Your task to perform on an android device: Add "razer blade" to the cart on target Image 0: 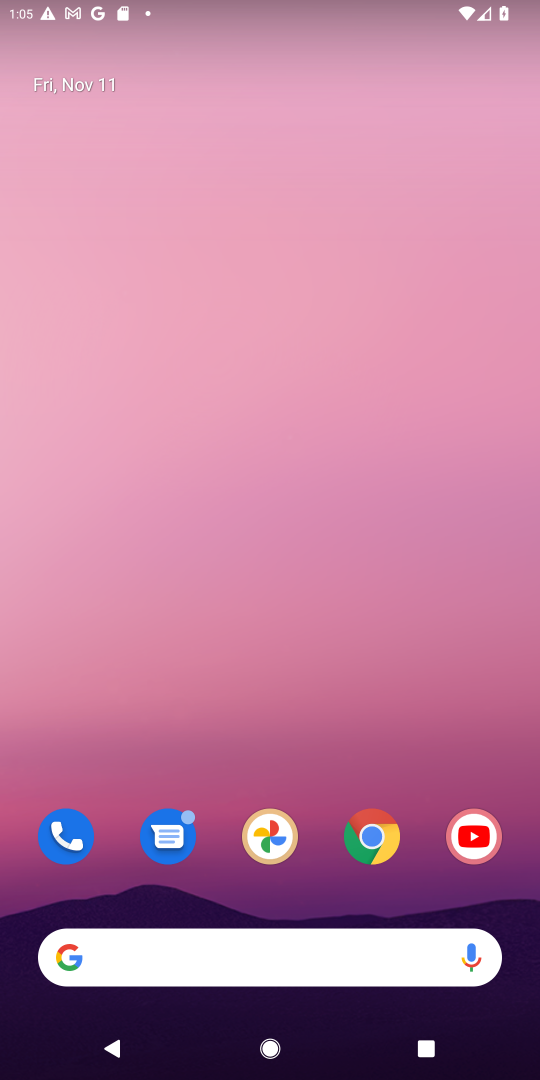
Step 0: click (259, 960)
Your task to perform on an android device: Add "razer blade" to the cart on target Image 1: 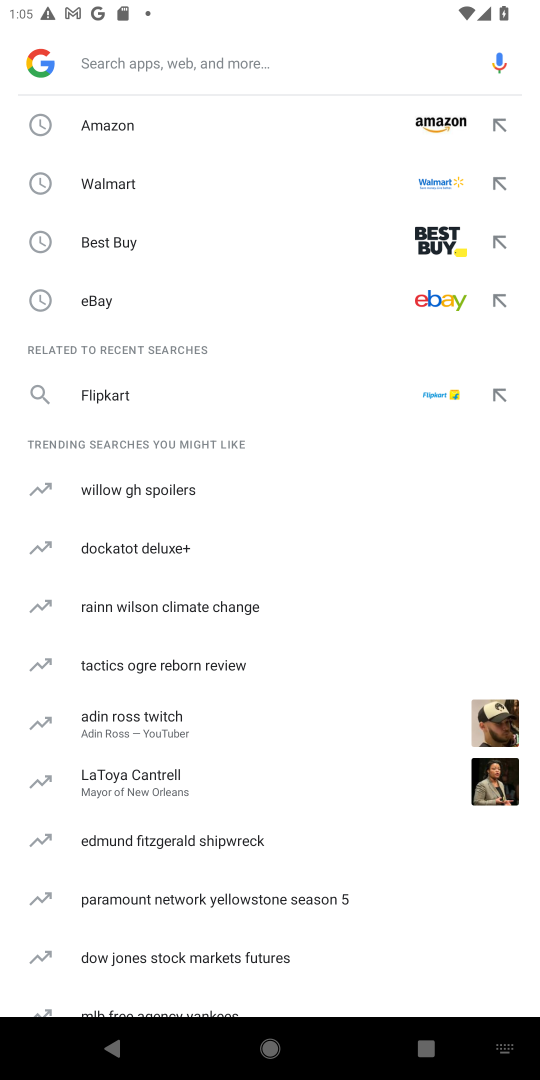
Step 1: click (259, 960)
Your task to perform on an android device: Add "razer blade" to the cart on target Image 2: 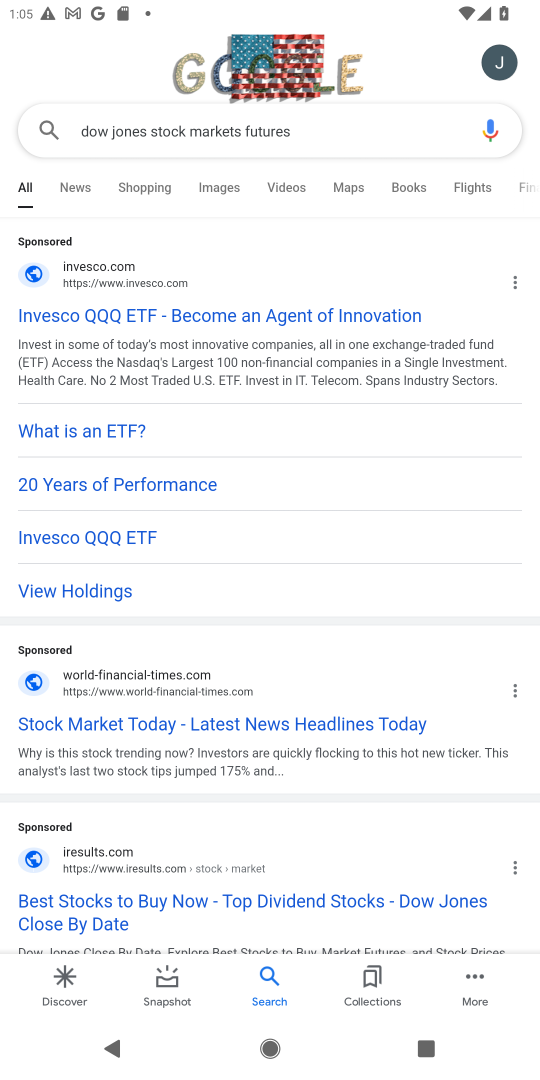
Step 2: click (315, 128)
Your task to perform on an android device: Add "razer blade" to the cart on target Image 3: 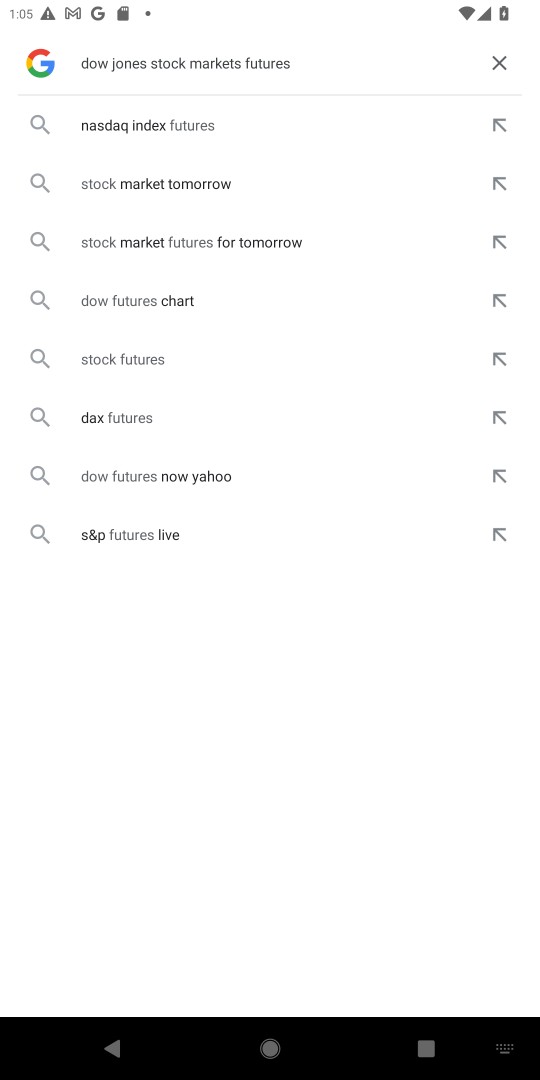
Step 3: click (494, 68)
Your task to perform on an android device: Add "razer blade" to the cart on target Image 4: 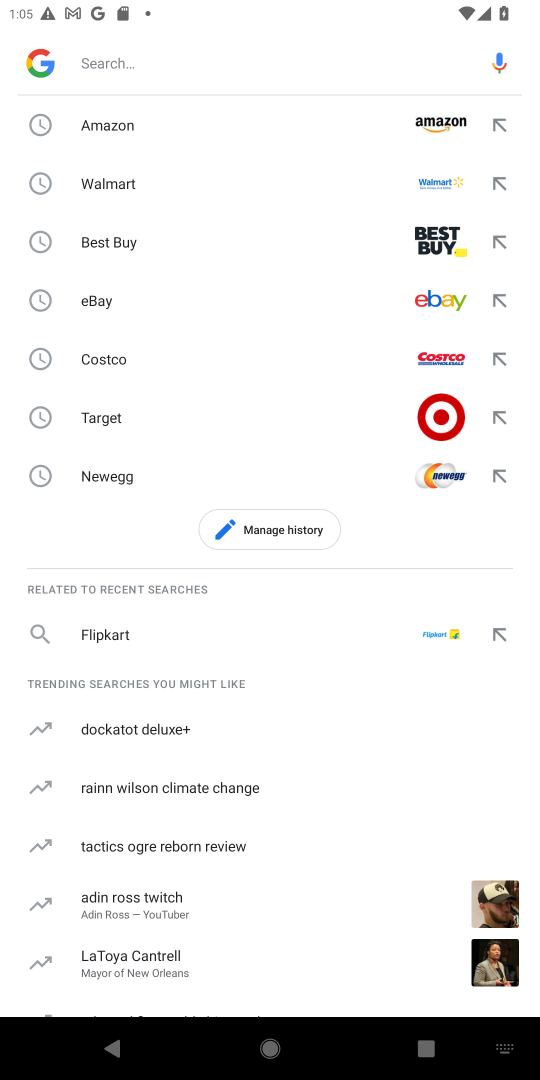
Step 4: click (498, 63)
Your task to perform on an android device: Add "razer blade" to the cart on target Image 5: 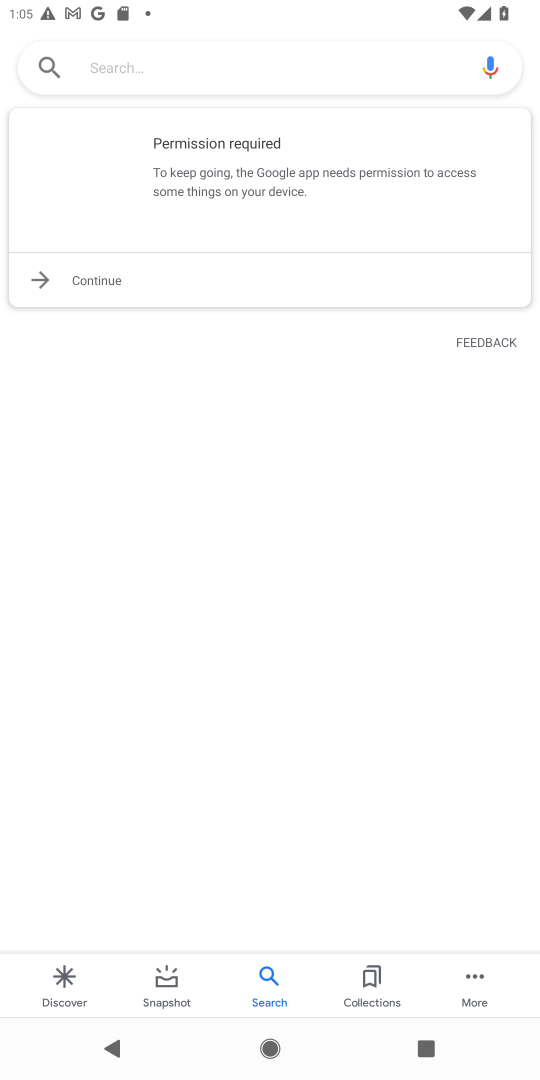
Step 5: click (337, 68)
Your task to perform on an android device: Add "razer blade" to the cart on target Image 6: 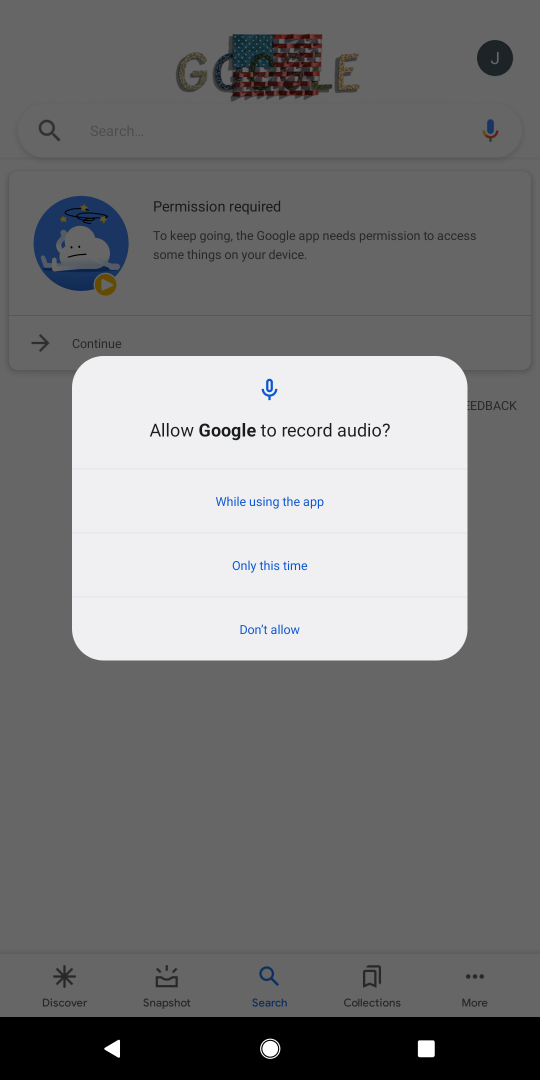
Step 6: click (147, 116)
Your task to perform on an android device: Add "razer blade" to the cart on target Image 7: 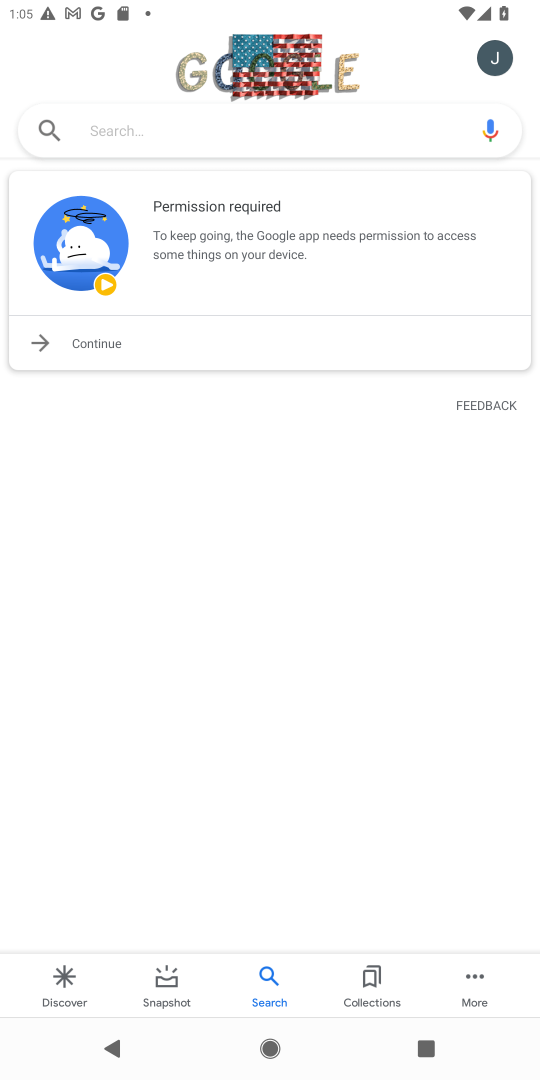
Step 7: press back button
Your task to perform on an android device: Add "razer blade" to the cart on target Image 8: 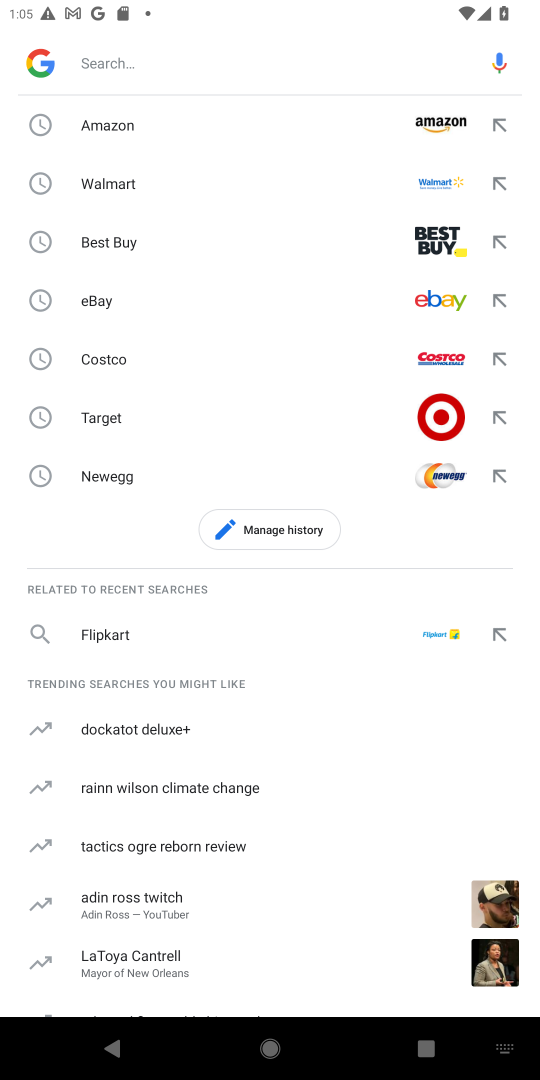
Step 8: press back button
Your task to perform on an android device: Add "razer blade" to the cart on target Image 9: 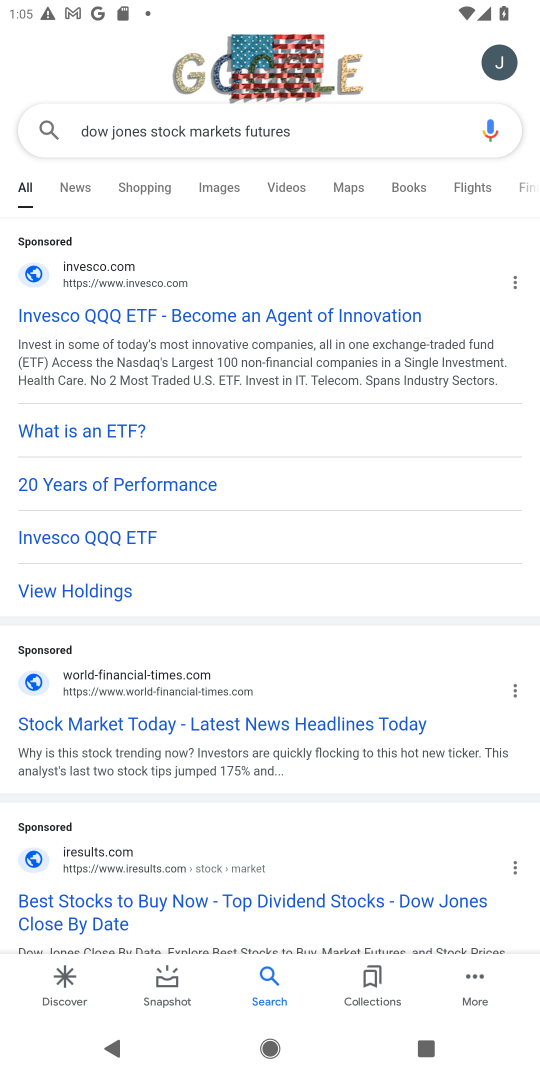
Step 9: click (330, 124)
Your task to perform on an android device: Add "razer blade" to the cart on target Image 10: 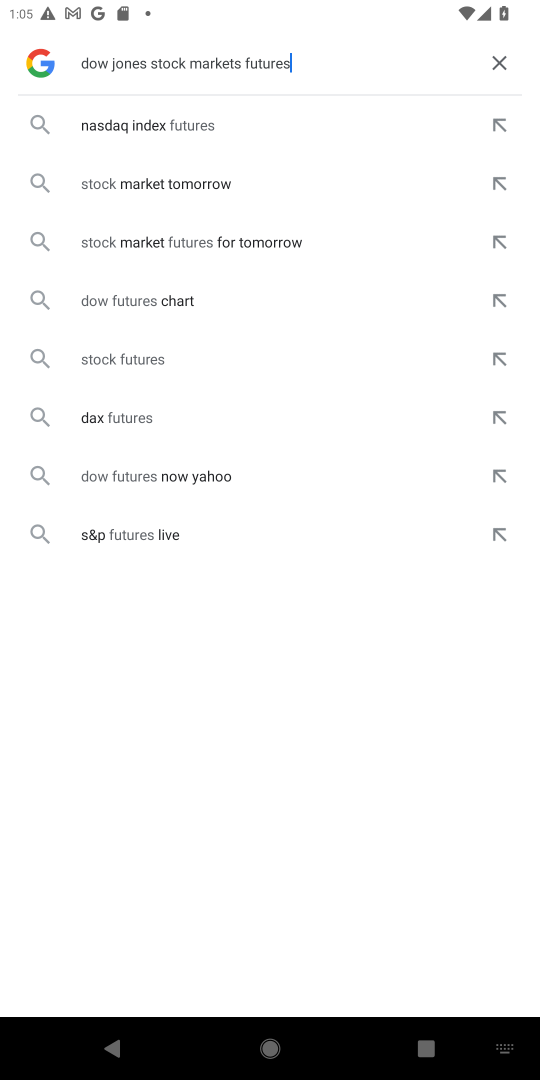
Step 10: click (490, 64)
Your task to perform on an android device: Add "razer blade" to the cart on target Image 11: 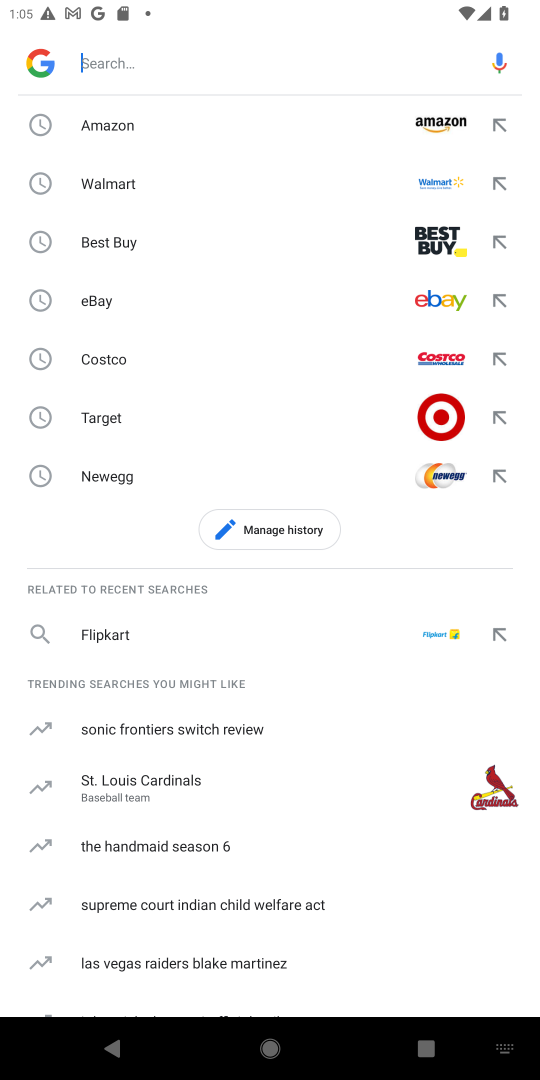
Step 11: click (148, 415)
Your task to perform on an android device: Add "razer blade" to the cart on target Image 12: 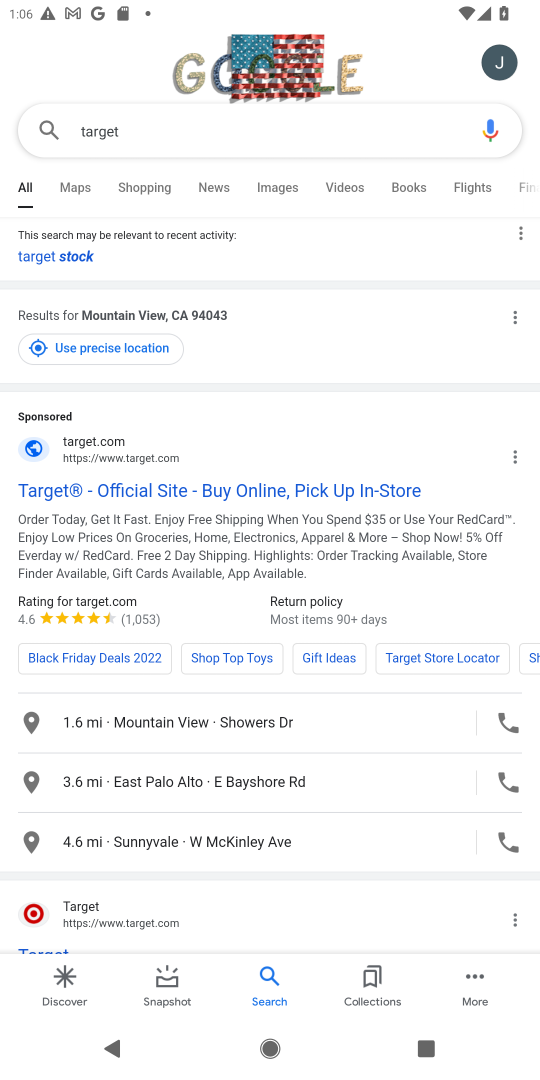
Step 12: click (113, 436)
Your task to perform on an android device: Add "razer blade" to the cart on target Image 13: 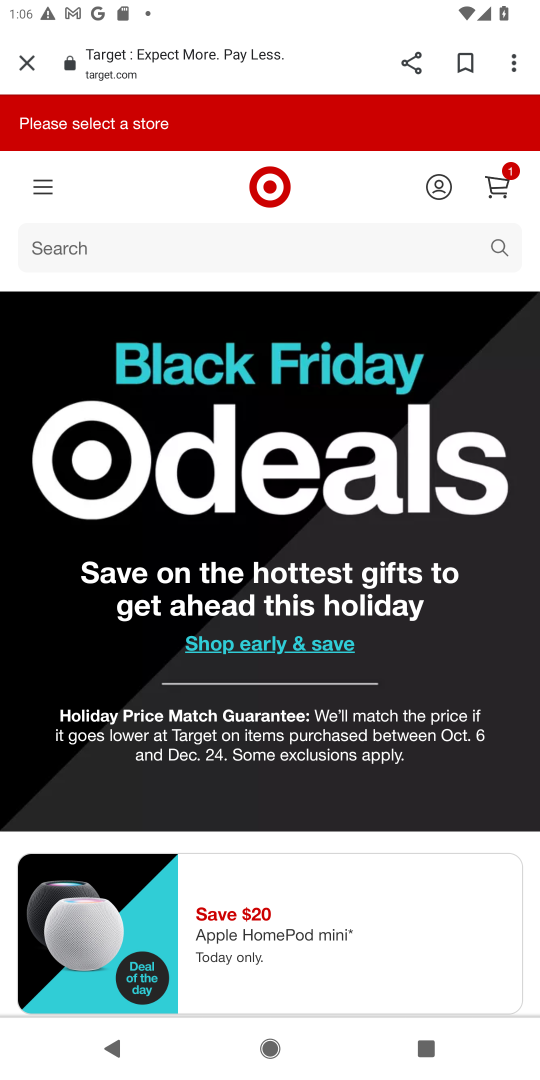
Step 13: click (301, 251)
Your task to perform on an android device: Add "razer blade" to the cart on target Image 14: 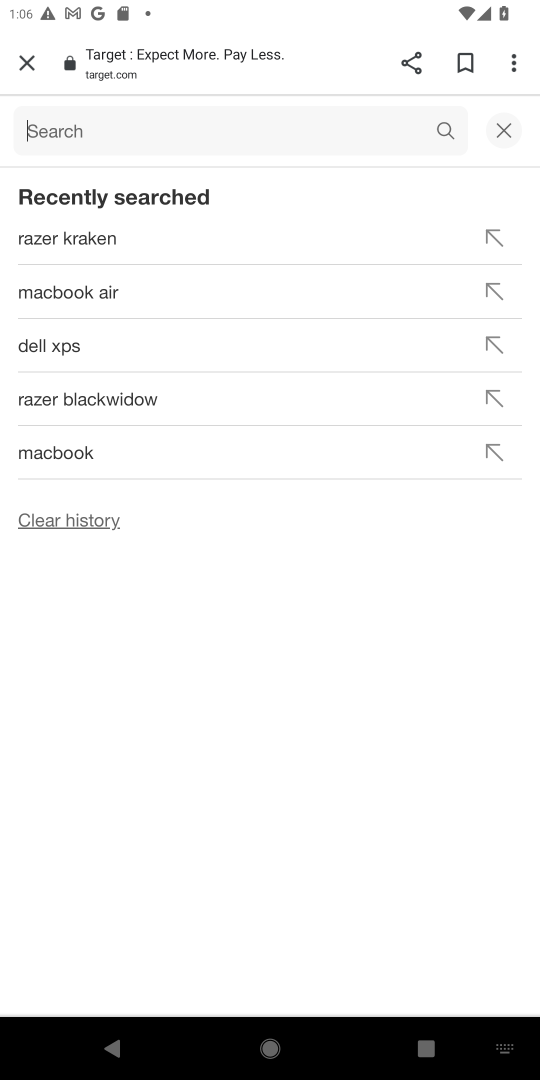
Step 14: type "razer blade"
Your task to perform on an android device: Add "razer blade" to the cart on target Image 15: 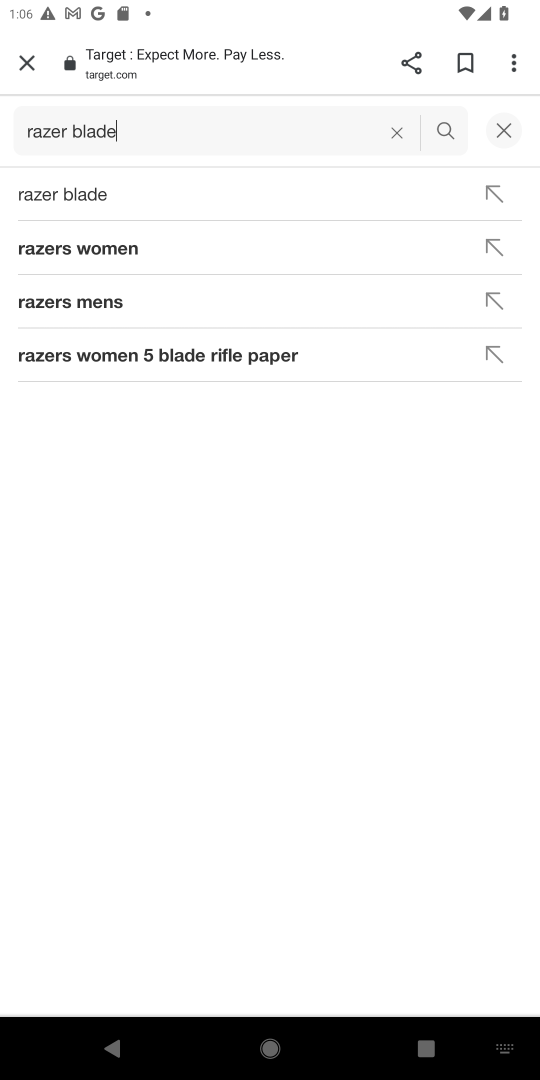
Step 15: click (104, 200)
Your task to perform on an android device: Add "razer blade" to the cart on target Image 16: 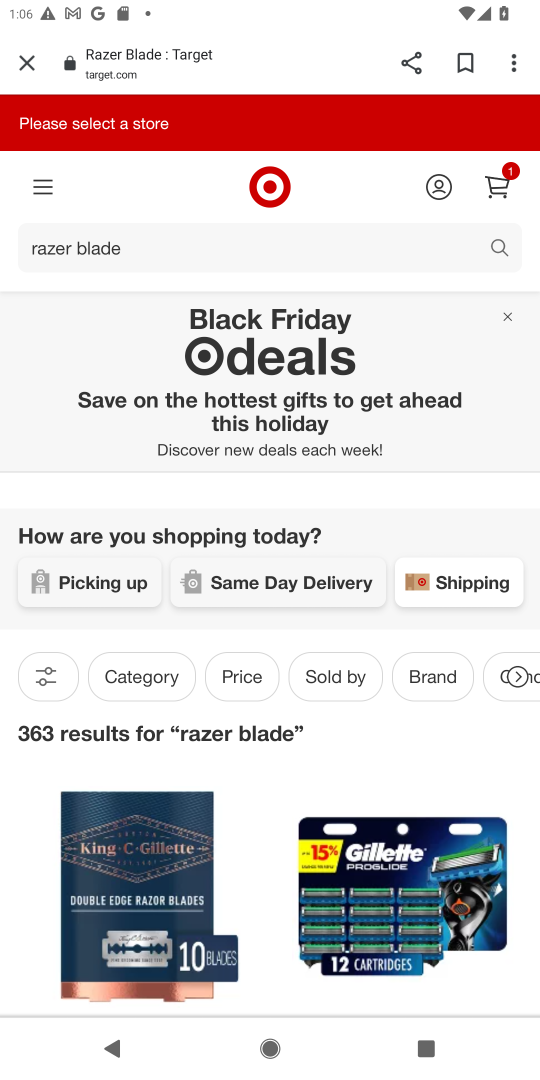
Step 16: drag from (234, 814) to (298, 355)
Your task to perform on an android device: Add "razer blade" to the cart on target Image 17: 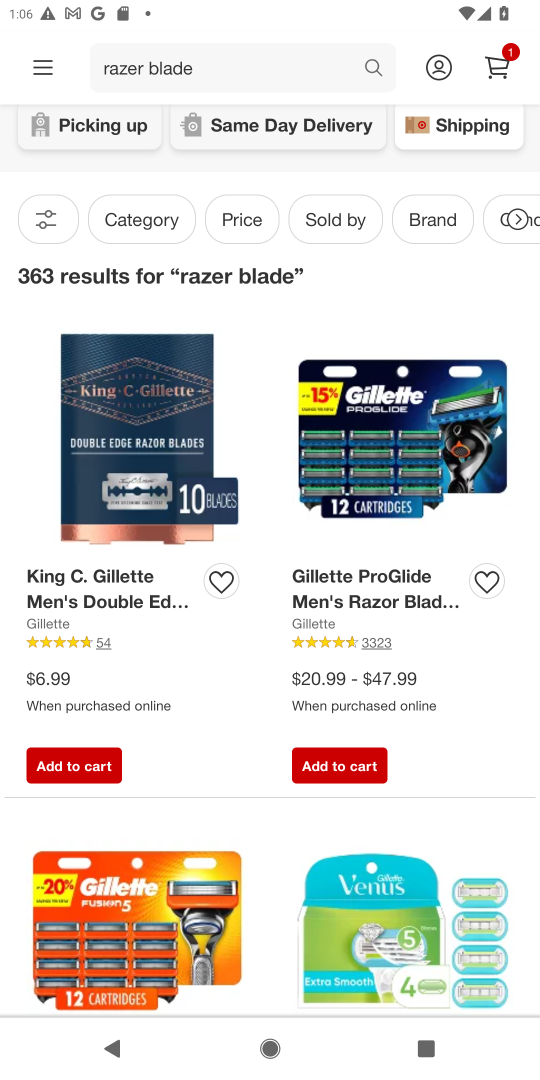
Step 17: click (61, 765)
Your task to perform on an android device: Add "razer blade" to the cart on target Image 18: 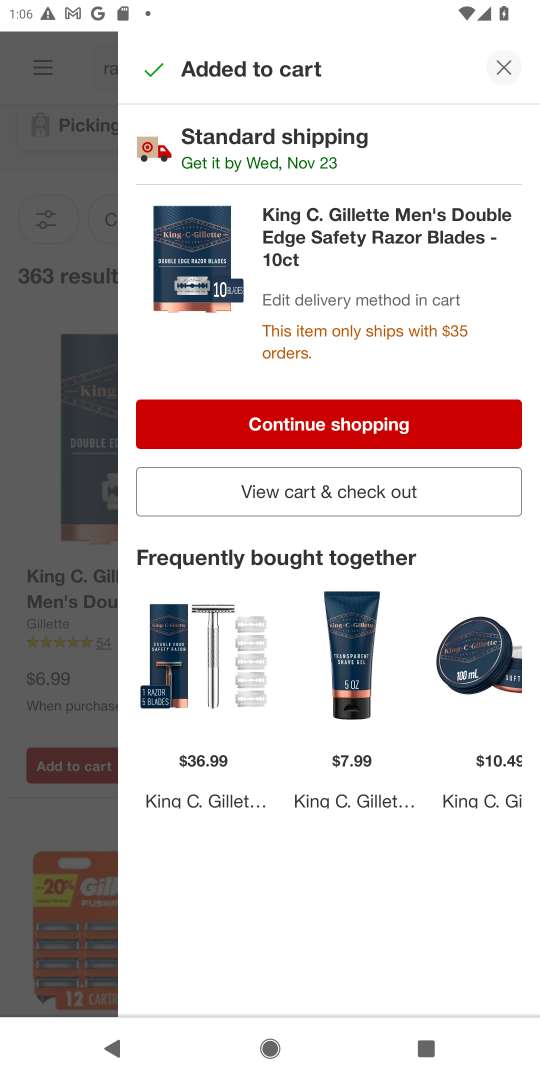
Step 18: click (303, 491)
Your task to perform on an android device: Add "razer blade" to the cart on target Image 19: 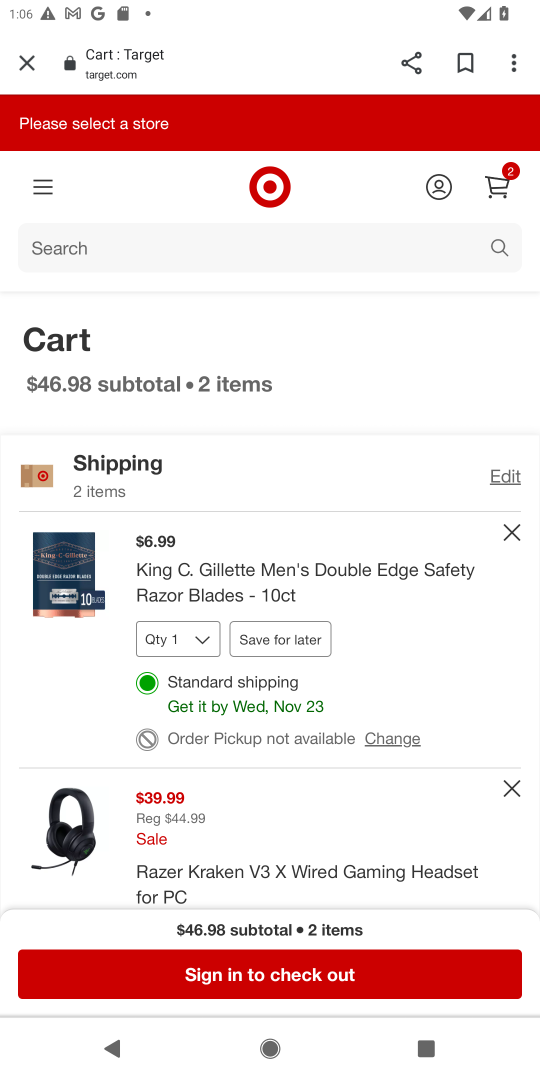
Step 19: click (272, 975)
Your task to perform on an android device: Add "razer blade" to the cart on target Image 20: 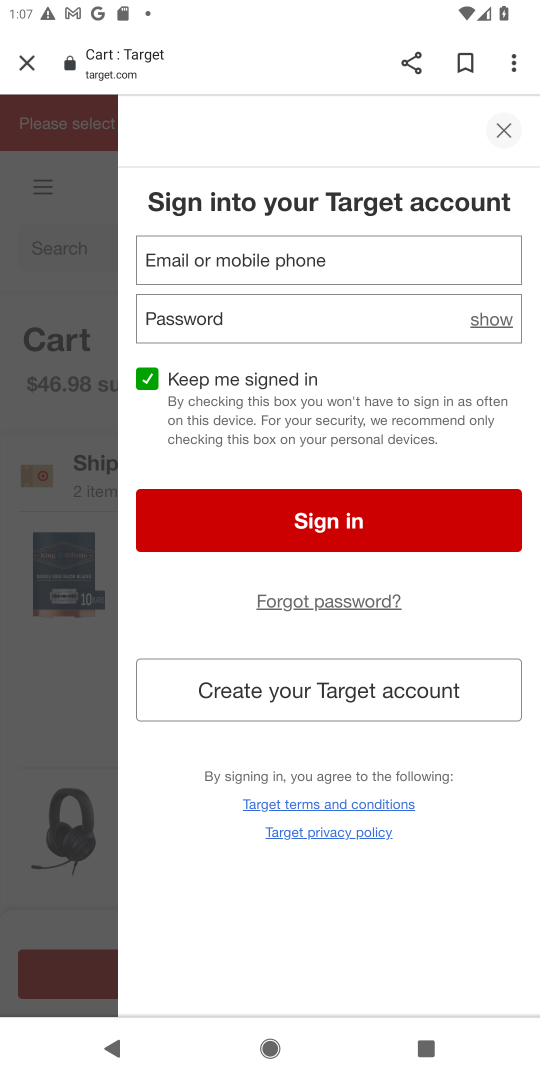
Step 20: click (505, 132)
Your task to perform on an android device: Add "razer blade" to the cart on target Image 21: 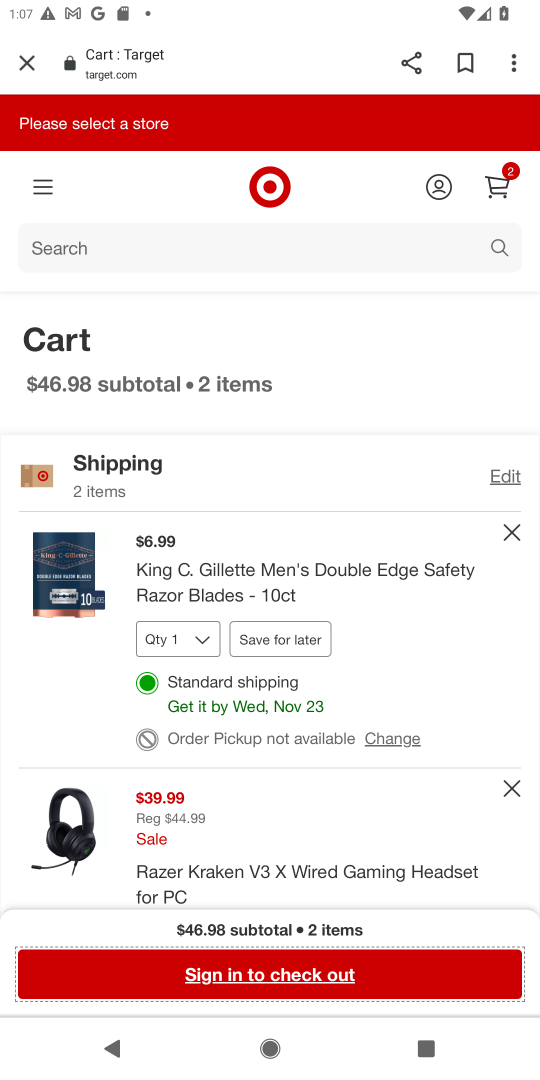
Step 21: task complete